Your task to perform on an android device: Go to Wikipedia Image 0: 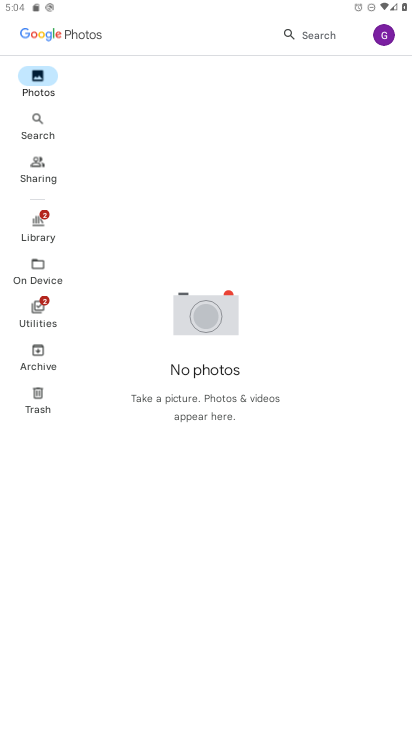
Step 0: press home button
Your task to perform on an android device: Go to Wikipedia Image 1: 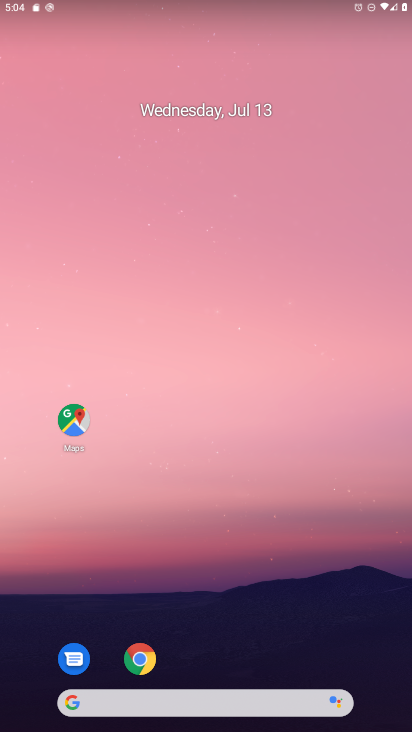
Step 1: click (144, 665)
Your task to perform on an android device: Go to Wikipedia Image 2: 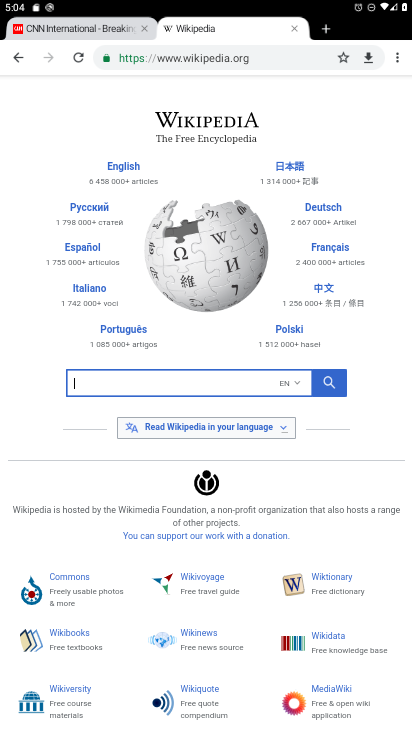
Step 2: task complete